Your task to perform on an android device: What's the weather today? Image 0: 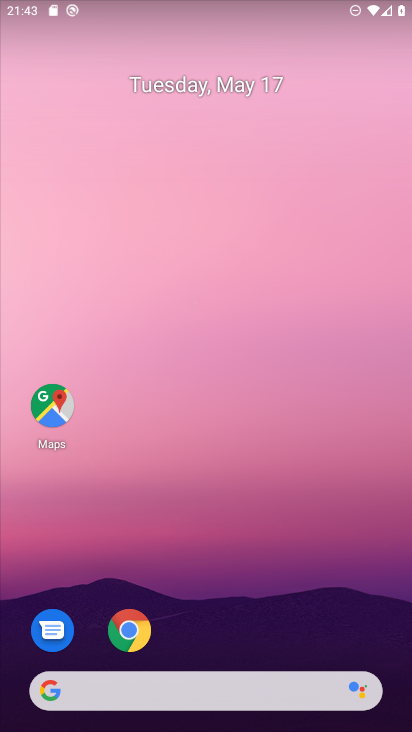
Step 0: click (270, 688)
Your task to perform on an android device: What's the weather today? Image 1: 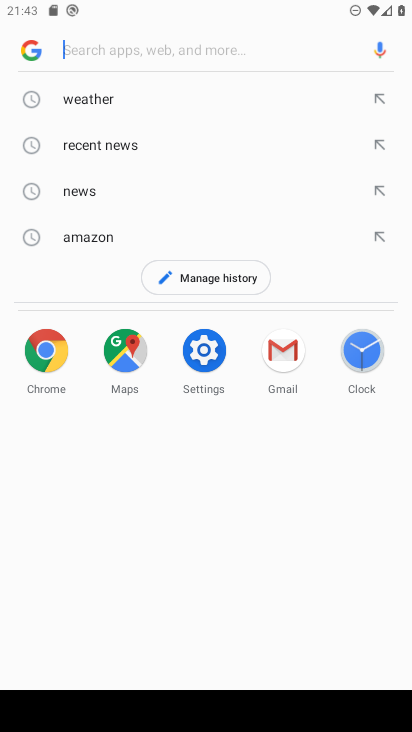
Step 1: click (133, 92)
Your task to perform on an android device: What's the weather today? Image 2: 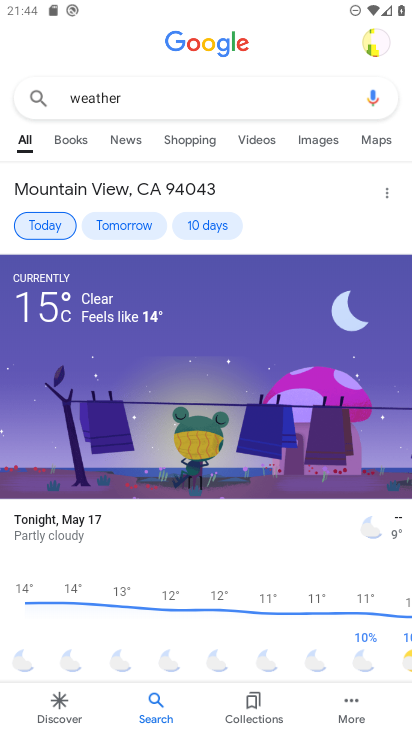
Step 2: task complete